Your task to perform on an android device: turn on priority inbox in the gmail app Image 0: 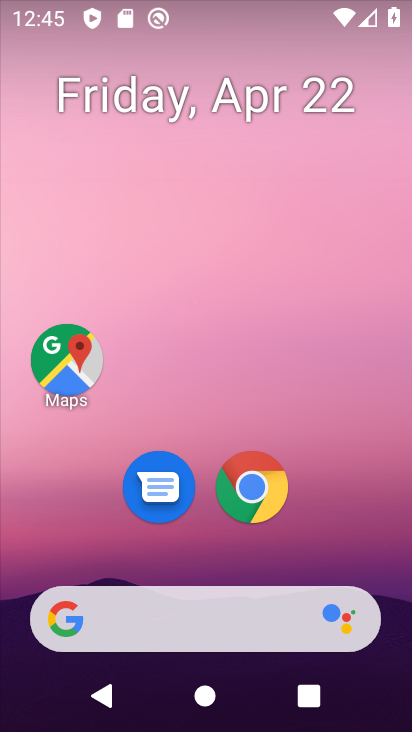
Step 0: drag from (207, 565) to (215, 186)
Your task to perform on an android device: turn on priority inbox in the gmail app Image 1: 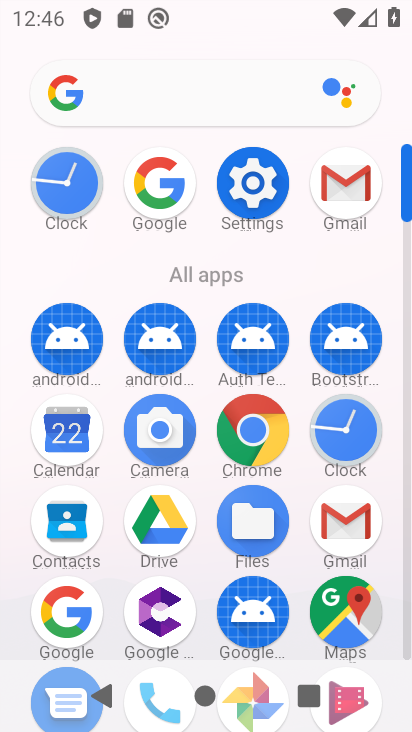
Step 1: click (323, 185)
Your task to perform on an android device: turn on priority inbox in the gmail app Image 2: 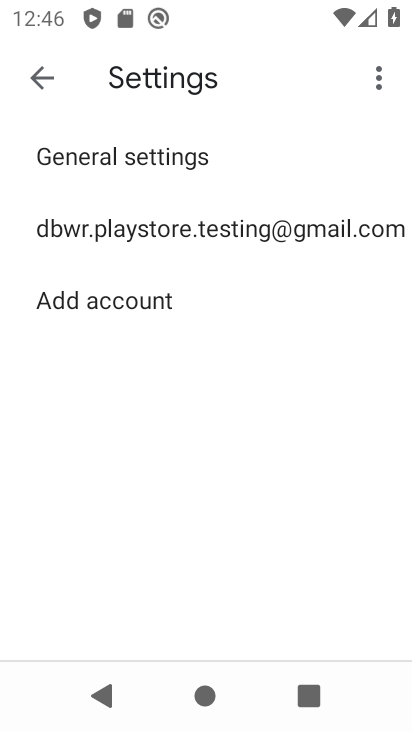
Step 2: click (210, 228)
Your task to perform on an android device: turn on priority inbox in the gmail app Image 3: 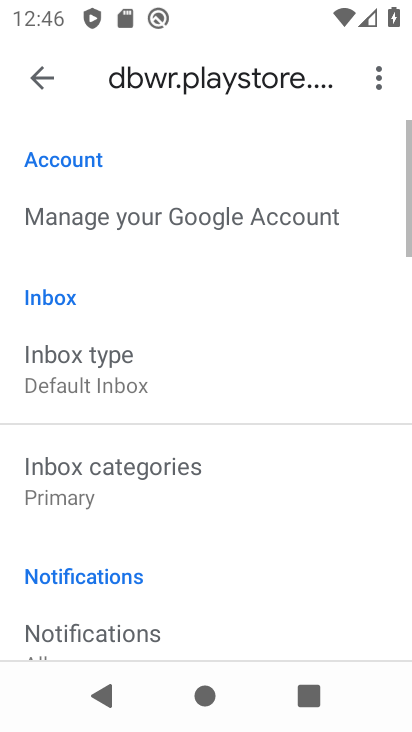
Step 3: drag from (206, 570) to (184, 282)
Your task to perform on an android device: turn on priority inbox in the gmail app Image 4: 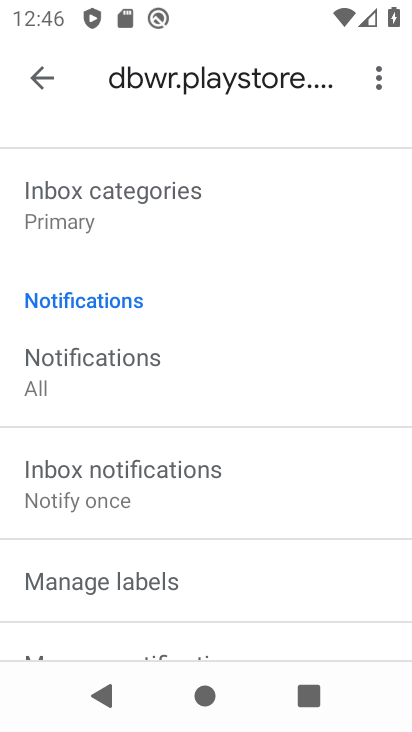
Step 4: drag from (183, 605) to (210, 374)
Your task to perform on an android device: turn on priority inbox in the gmail app Image 5: 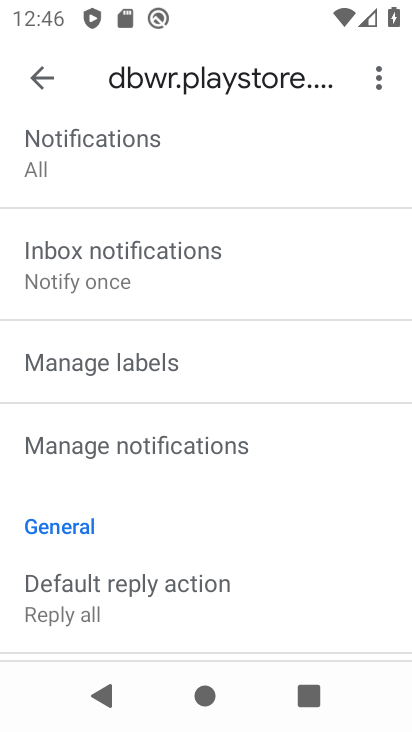
Step 5: drag from (212, 562) to (232, 380)
Your task to perform on an android device: turn on priority inbox in the gmail app Image 6: 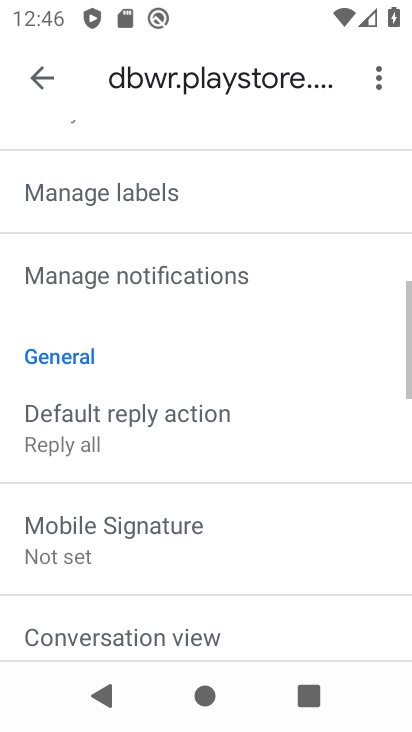
Step 6: drag from (231, 552) to (241, 345)
Your task to perform on an android device: turn on priority inbox in the gmail app Image 7: 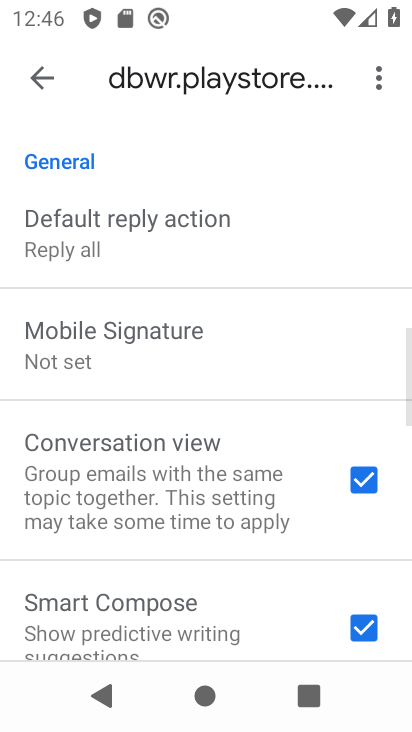
Step 7: drag from (236, 225) to (236, 528)
Your task to perform on an android device: turn on priority inbox in the gmail app Image 8: 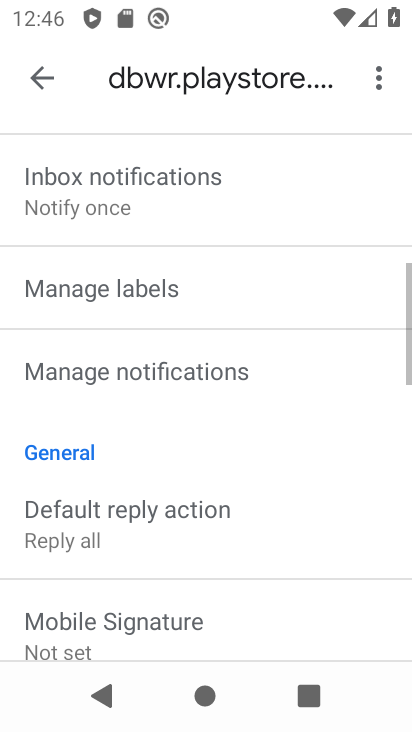
Step 8: drag from (250, 254) to (260, 491)
Your task to perform on an android device: turn on priority inbox in the gmail app Image 9: 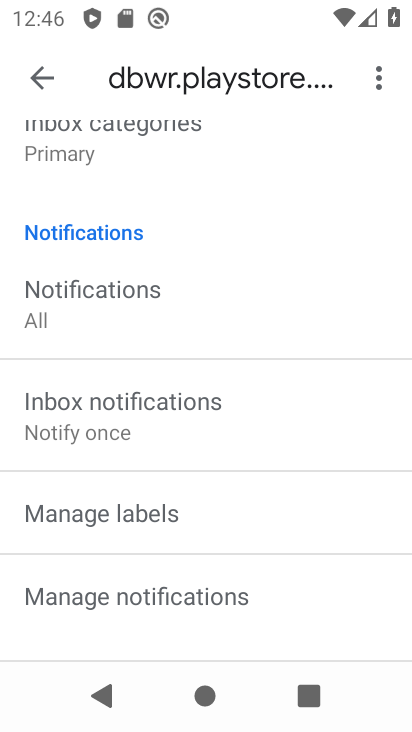
Step 9: drag from (235, 317) to (245, 430)
Your task to perform on an android device: turn on priority inbox in the gmail app Image 10: 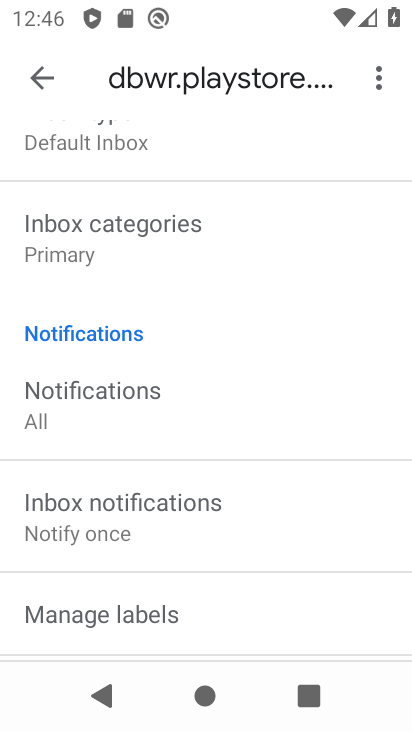
Step 10: drag from (230, 285) to (247, 490)
Your task to perform on an android device: turn on priority inbox in the gmail app Image 11: 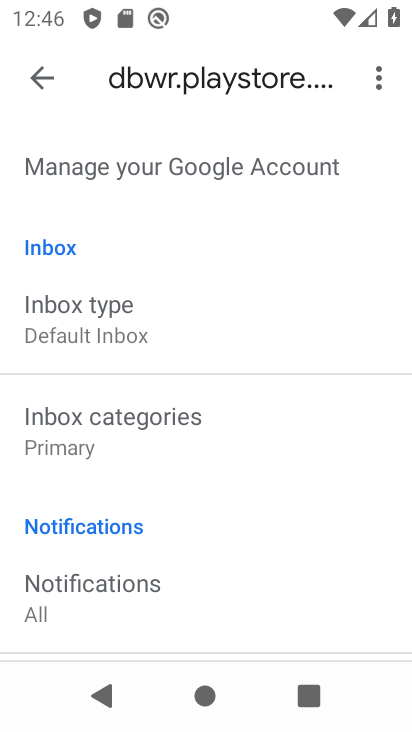
Step 11: click (201, 339)
Your task to perform on an android device: turn on priority inbox in the gmail app Image 12: 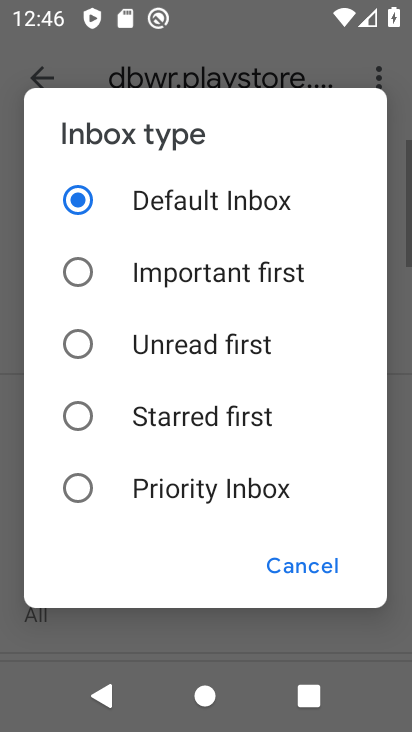
Step 12: click (110, 477)
Your task to perform on an android device: turn on priority inbox in the gmail app Image 13: 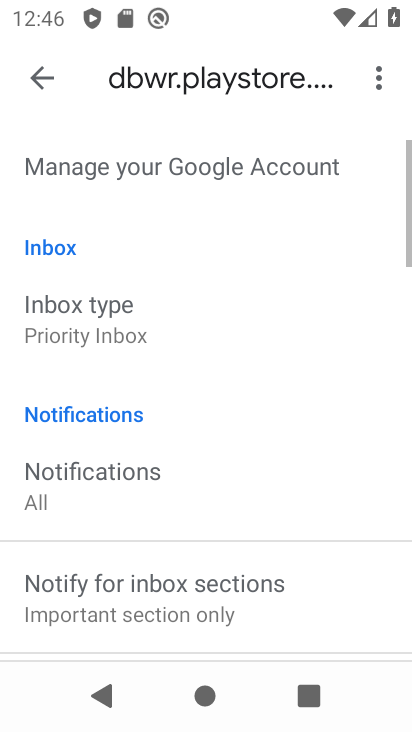
Step 13: task complete